Your task to perform on an android device: open app "eBay: The shopping marketplace" (install if not already installed) Image 0: 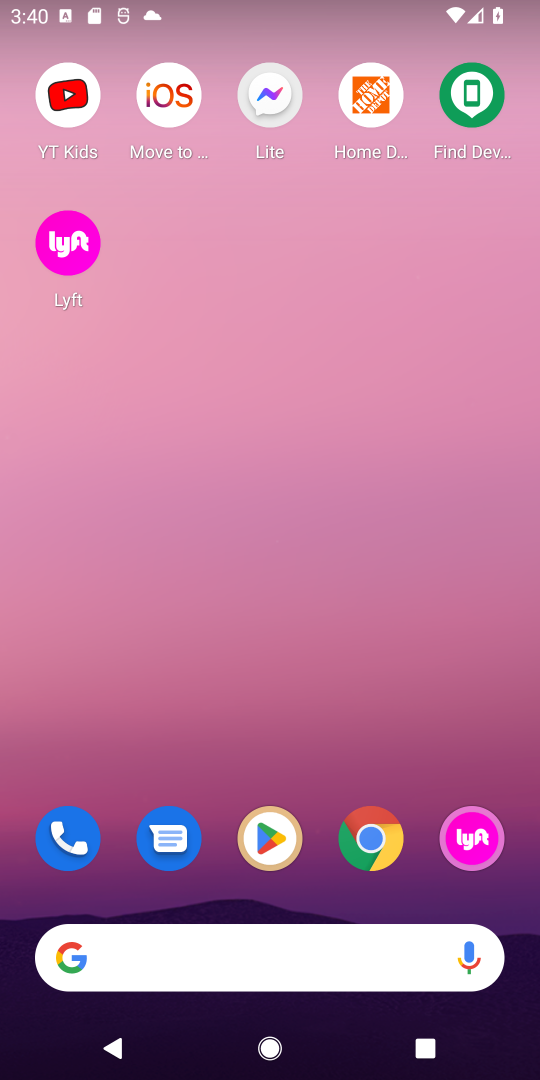
Step 0: press home button
Your task to perform on an android device: open app "eBay: The shopping marketplace" (install if not already installed) Image 1: 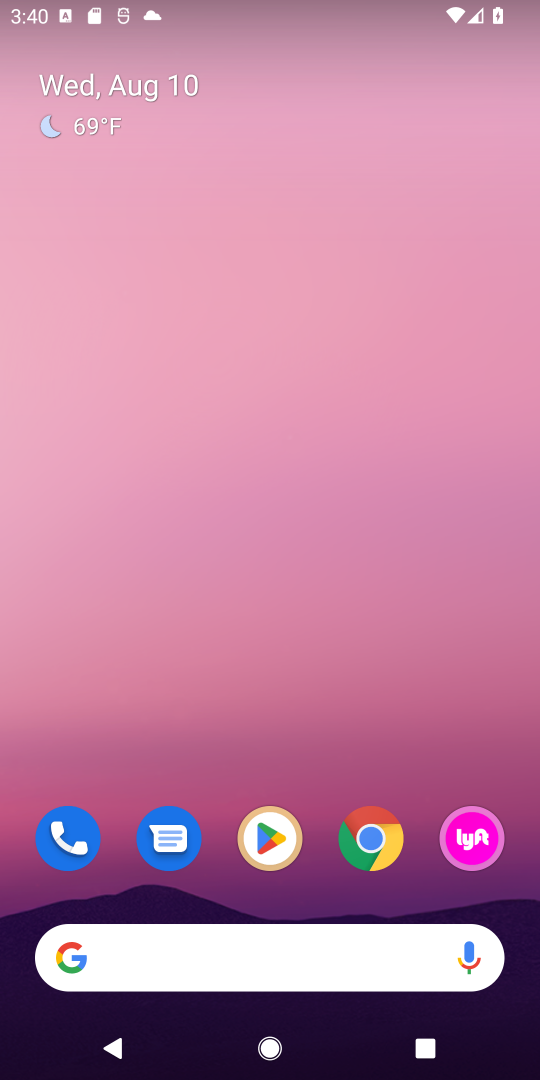
Step 1: click (273, 846)
Your task to perform on an android device: open app "eBay: The shopping marketplace" (install if not already installed) Image 2: 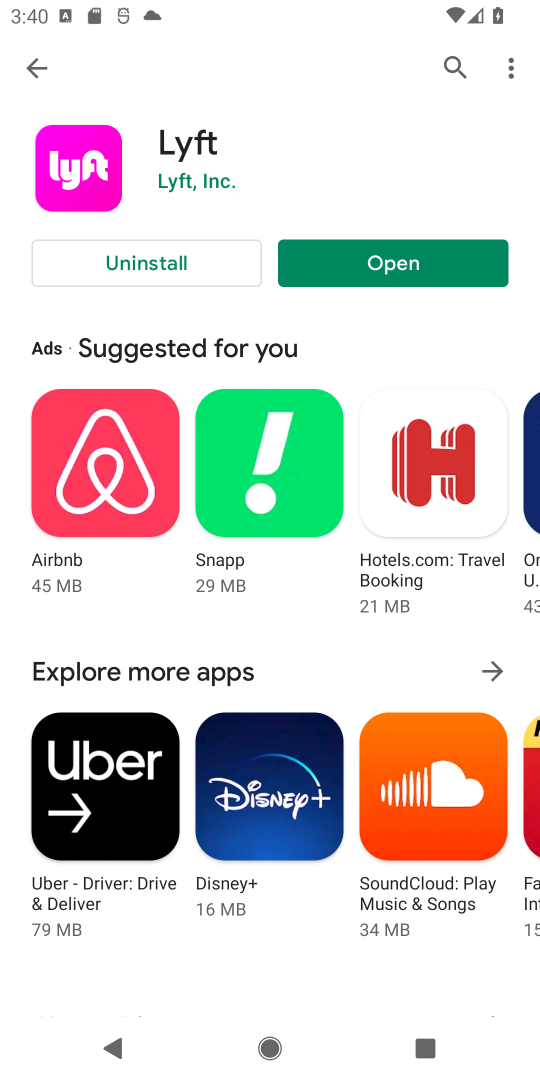
Step 2: click (450, 62)
Your task to perform on an android device: open app "eBay: The shopping marketplace" (install if not already installed) Image 3: 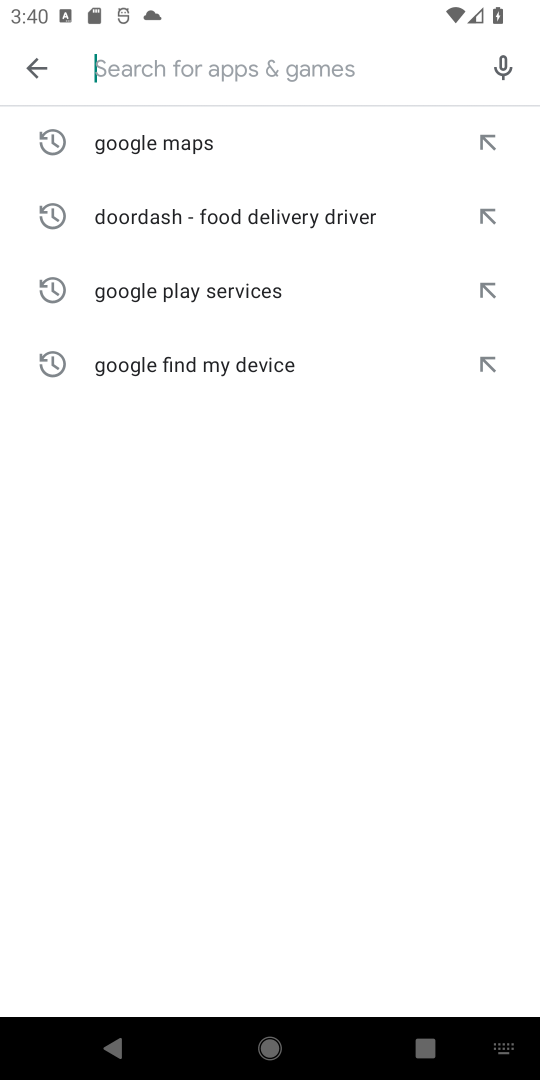
Step 3: type "eBay: The shopping marketplace"
Your task to perform on an android device: open app "eBay: The shopping marketplace" (install if not already installed) Image 4: 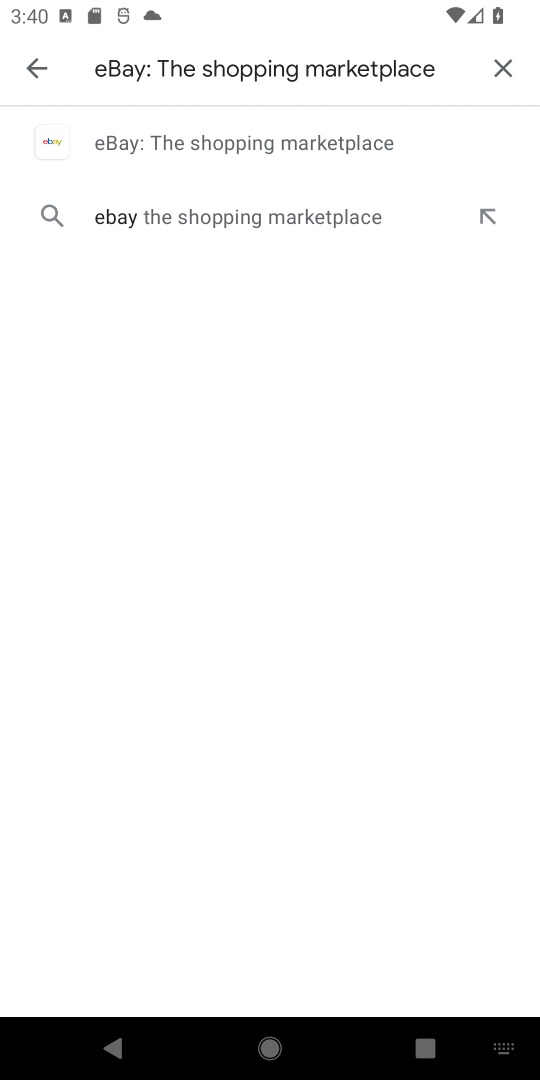
Step 4: click (211, 151)
Your task to perform on an android device: open app "eBay: The shopping marketplace" (install if not already installed) Image 5: 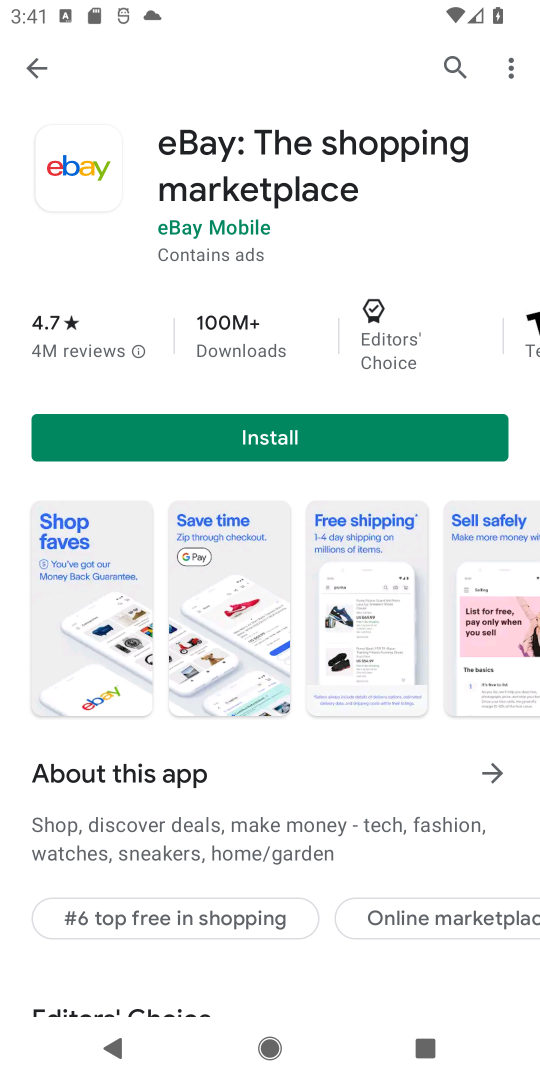
Step 5: click (280, 443)
Your task to perform on an android device: open app "eBay: The shopping marketplace" (install if not already installed) Image 6: 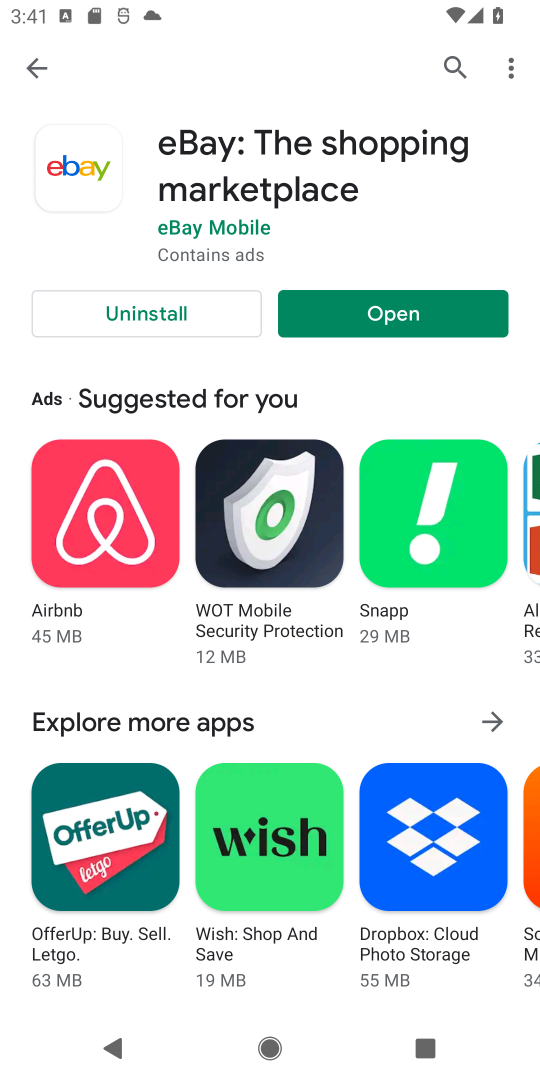
Step 6: task complete